Your task to perform on an android device: Open Chrome and go to the settings page Image 0: 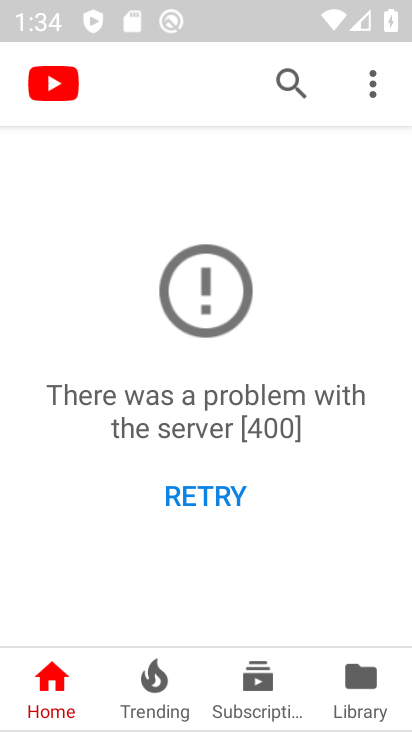
Step 0: press home button
Your task to perform on an android device: Open Chrome and go to the settings page Image 1: 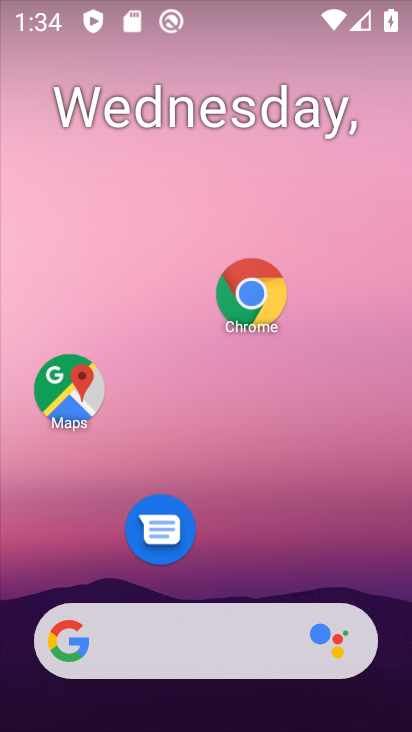
Step 1: click (243, 293)
Your task to perform on an android device: Open Chrome and go to the settings page Image 2: 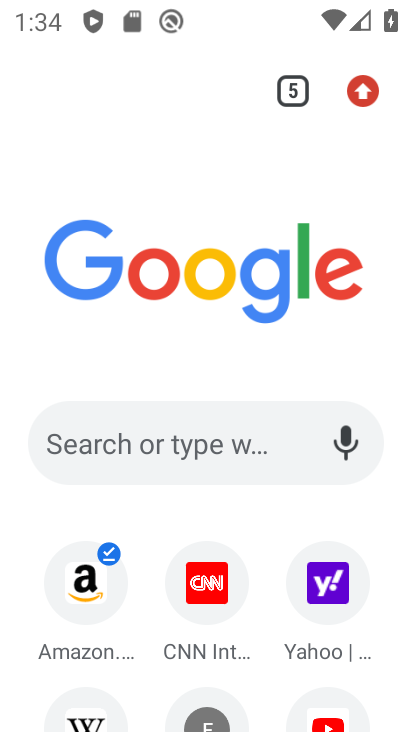
Step 2: click (369, 87)
Your task to perform on an android device: Open Chrome and go to the settings page Image 3: 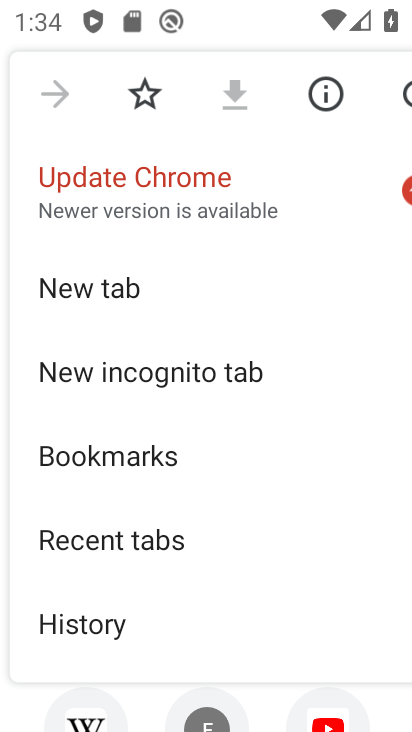
Step 3: task complete